Your task to perform on an android device: Go to CNN.com Image 0: 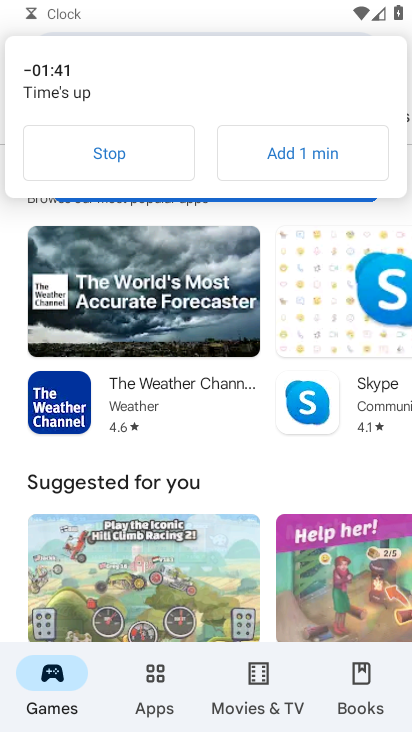
Step 0: press home button
Your task to perform on an android device: Go to CNN.com Image 1: 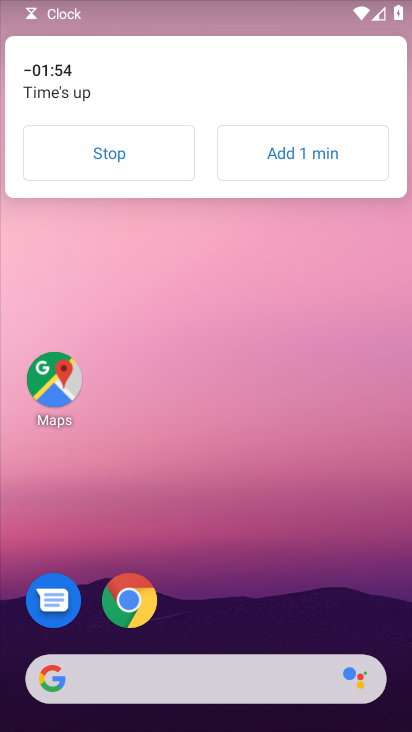
Step 1: click (144, 152)
Your task to perform on an android device: Go to CNN.com Image 2: 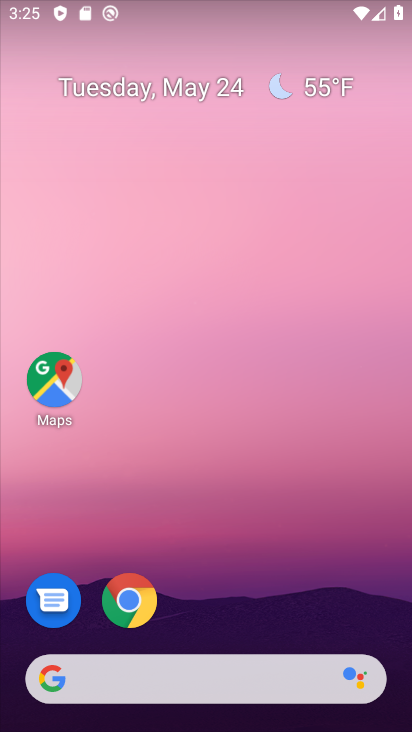
Step 2: click (129, 609)
Your task to perform on an android device: Go to CNN.com Image 3: 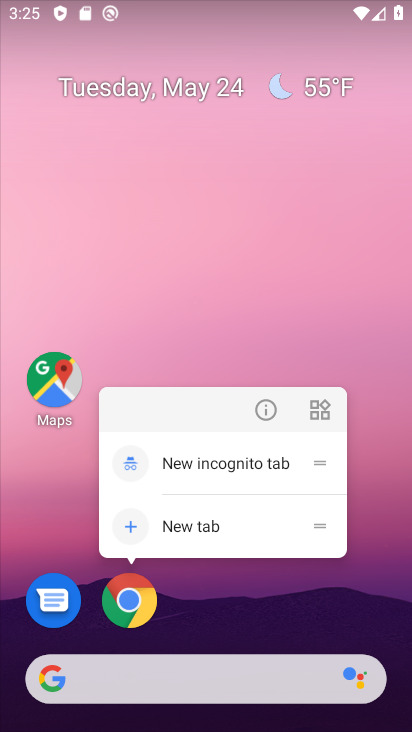
Step 3: click (135, 588)
Your task to perform on an android device: Go to CNN.com Image 4: 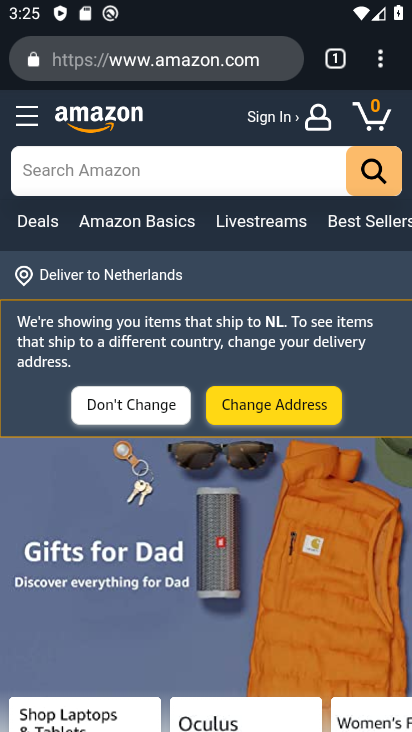
Step 4: click (237, 45)
Your task to perform on an android device: Go to CNN.com Image 5: 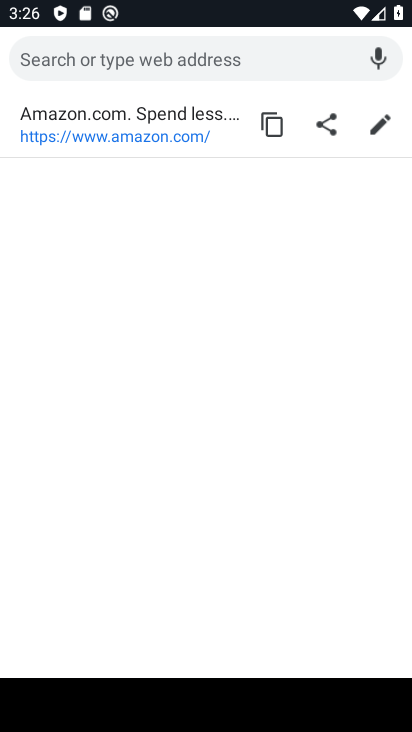
Step 5: type "cnn.com"
Your task to perform on an android device: Go to CNN.com Image 6: 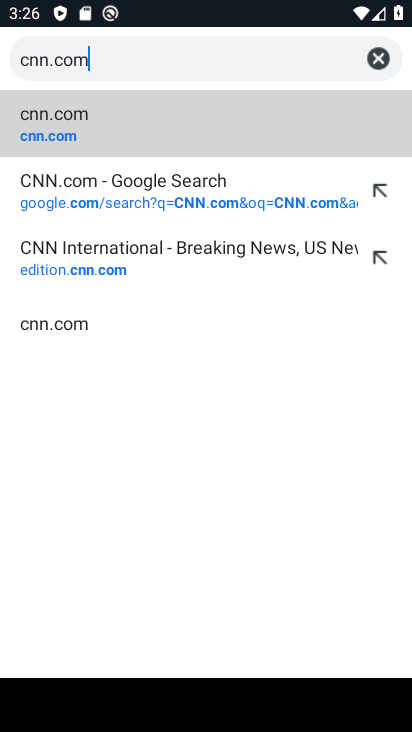
Step 6: click (108, 138)
Your task to perform on an android device: Go to CNN.com Image 7: 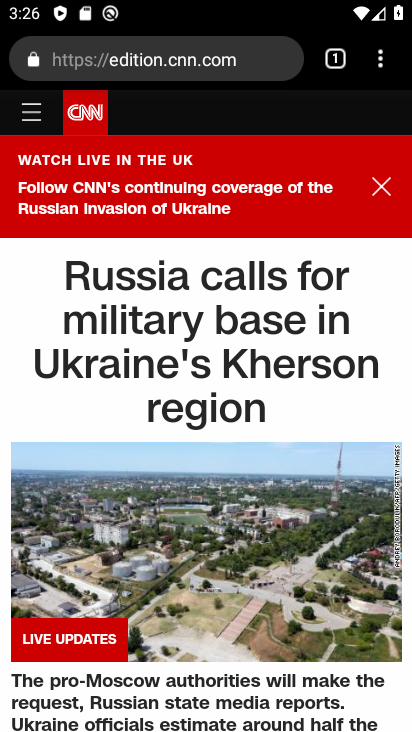
Step 7: task complete